Your task to perform on an android device: Open battery settings Image 0: 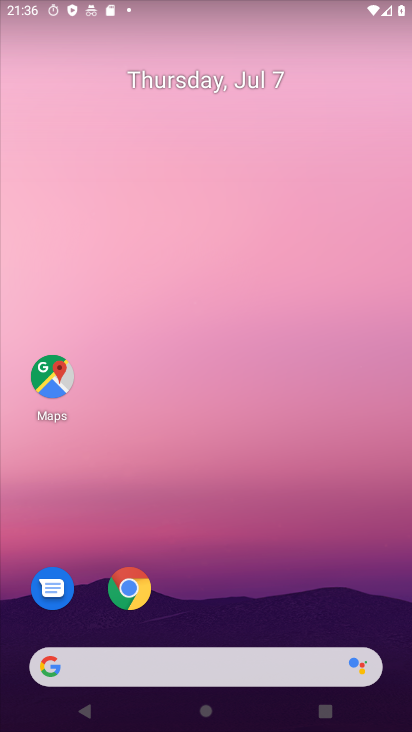
Step 0: click (236, 141)
Your task to perform on an android device: Open battery settings Image 1: 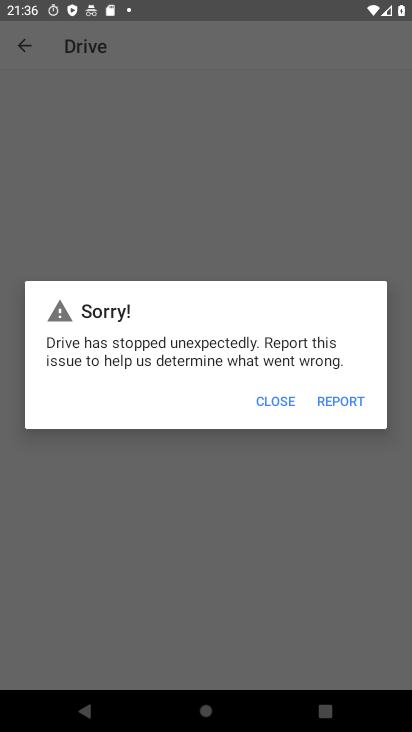
Step 1: click (281, 396)
Your task to perform on an android device: Open battery settings Image 2: 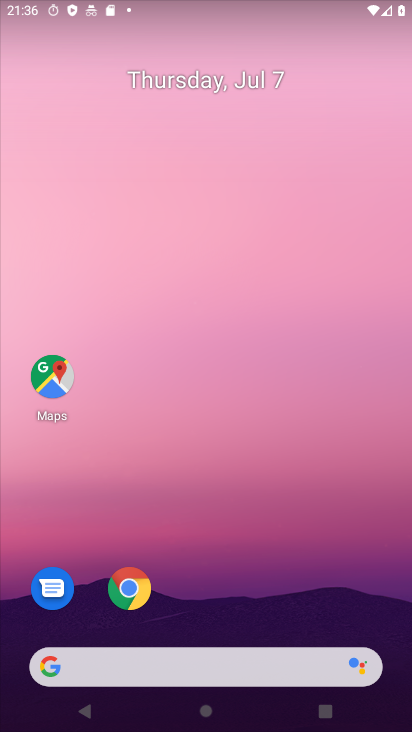
Step 2: click (219, 293)
Your task to perform on an android device: Open battery settings Image 3: 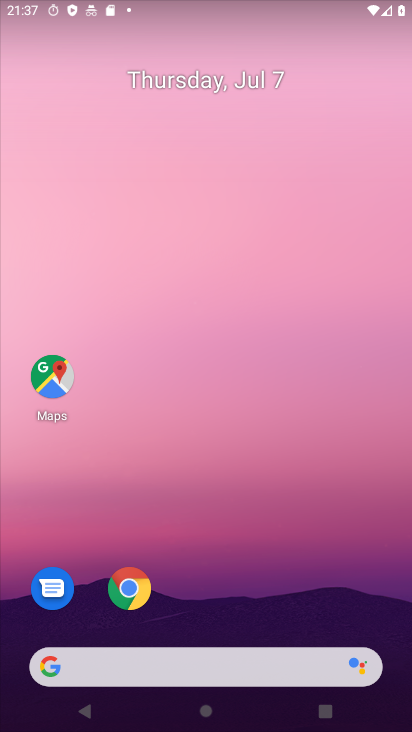
Step 3: drag from (259, 594) to (183, 7)
Your task to perform on an android device: Open battery settings Image 4: 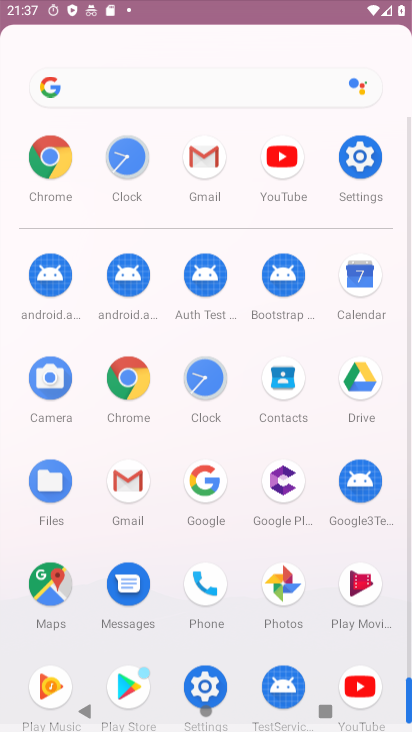
Step 4: drag from (238, 593) to (150, 74)
Your task to perform on an android device: Open battery settings Image 5: 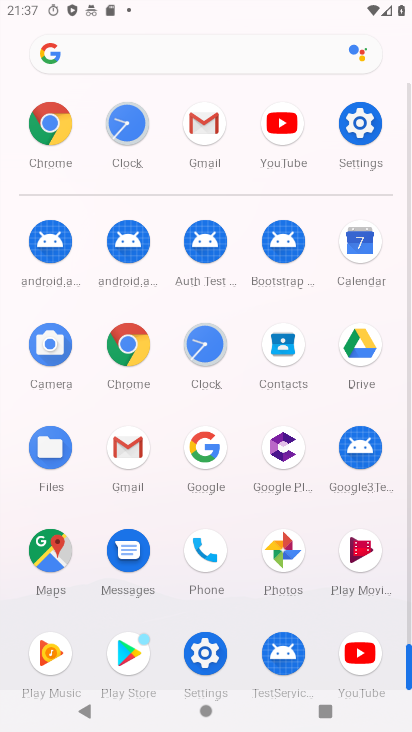
Step 5: click (362, 130)
Your task to perform on an android device: Open battery settings Image 6: 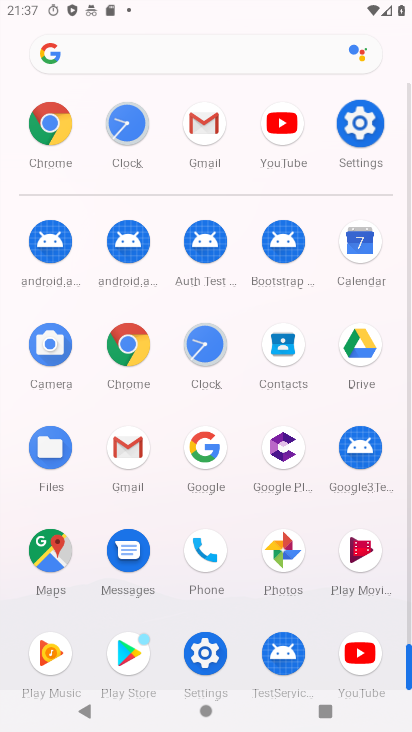
Step 6: click (362, 130)
Your task to perform on an android device: Open battery settings Image 7: 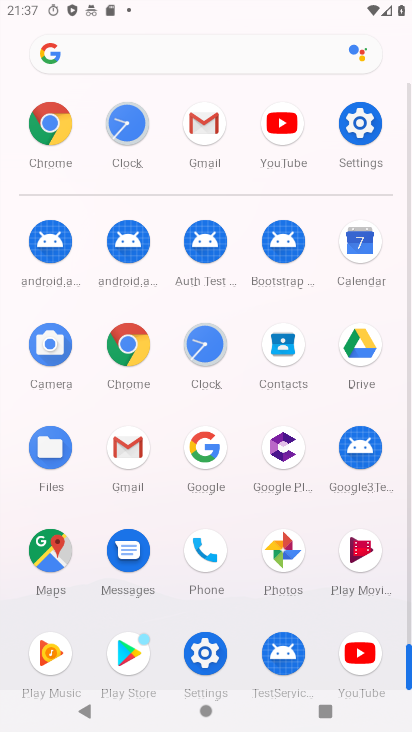
Step 7: click (362, 130)
Your task to perform on an android device: Open battery settings Image 8: 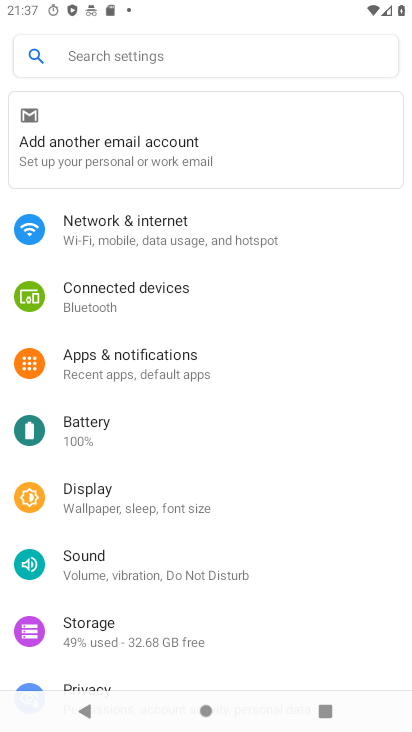
Step 8: click (84, 433)
Your task to perform on an android device: Open battery settings Image 9: 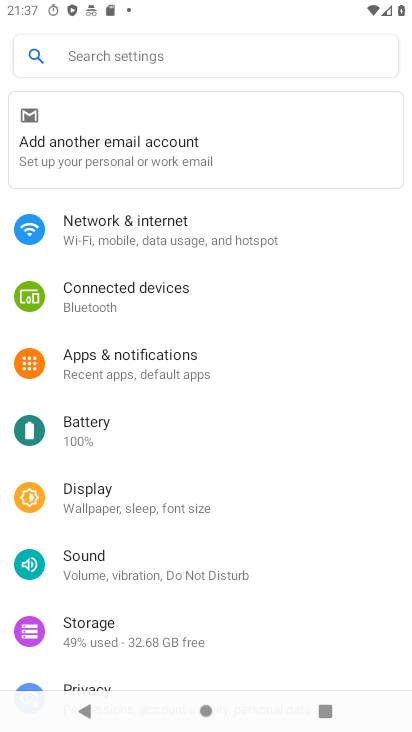
Step 9: click (84, 433)
Your task to perform on an android device: Open battery settings Image 10: 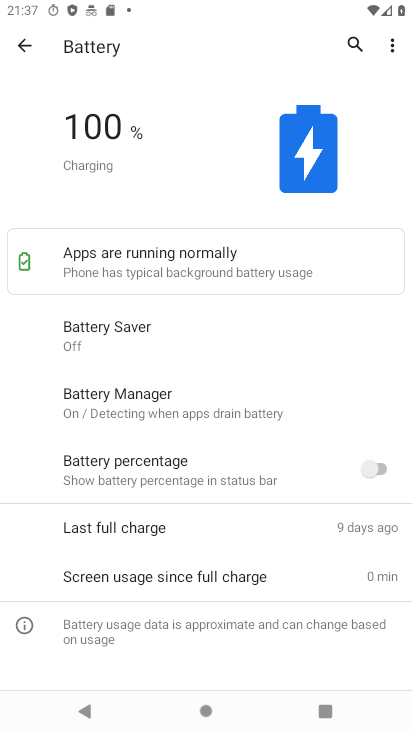
Step 10: task complete